Your task to perform on an android device: Empty the shopping cart on ebay.com. Image 0: 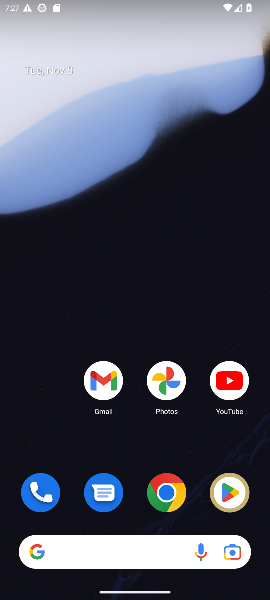
Step 0: click (165, 489)
Your task to perform on an android device: Empty the shopping cart on ebay.com. Image 1: 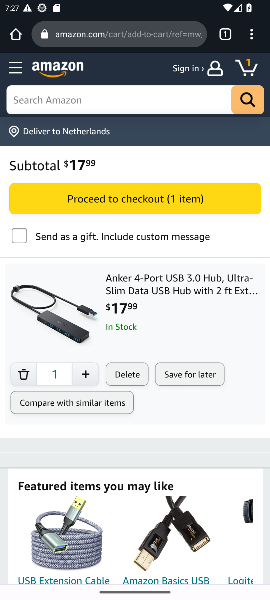
Step 1: click (127, 28)
Your task to perform on an android device: Empty the shopping cart on ebay.com. Image 2: 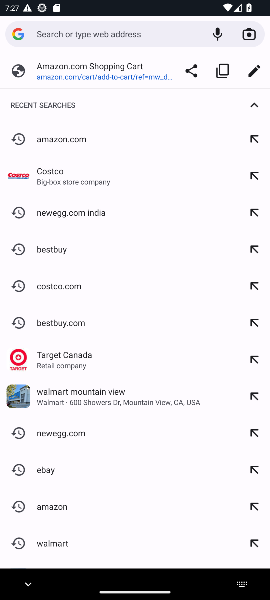
Step 2: type "ebay.com"
Your task to perform on an android device: Empty the shopping cart on ebay.com. Image 3: 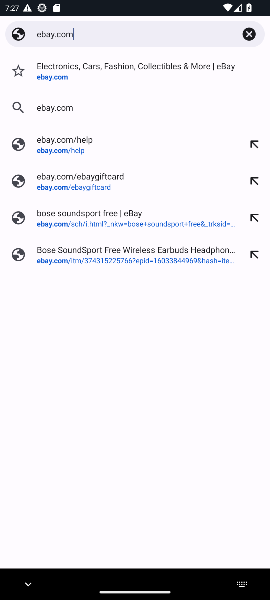
Step 3: click (54, 105)
Your task to perform on an android device: Empty the shopping cart on ebay.com. Image 4: 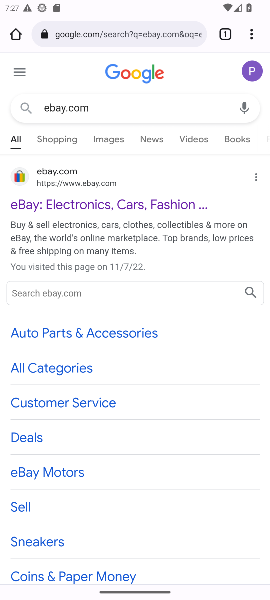
Step 4: click (98, 181)
Your task to perform on an android device: Empty the shopping cart on ebay.com. Image 5: 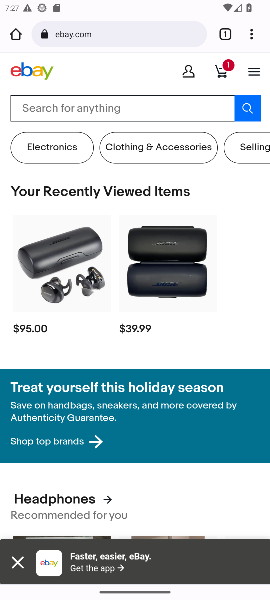
Step 5: click (220, 73)
Your task to perform on an android device: Empty the shopping cart on ebay.com. Image 6: 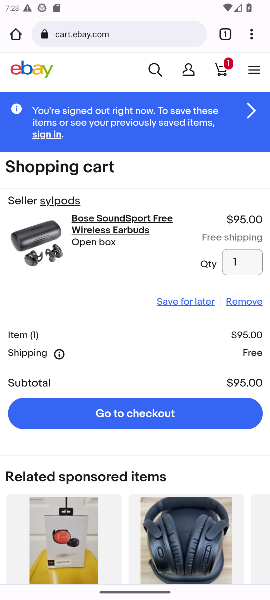
Step 6: click (242, 304)
Your task to perform on an android device: Empty the shopping cart on ebay.com. Image 7: 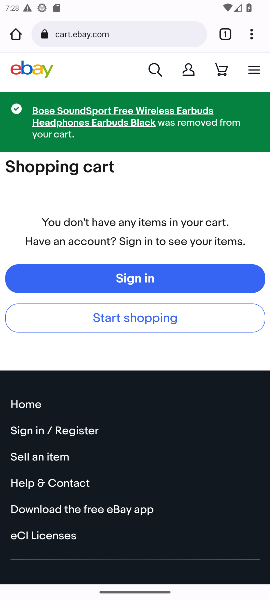
Step 7: task complete